Your task to perform on an android device: Open sound settings Image 0: 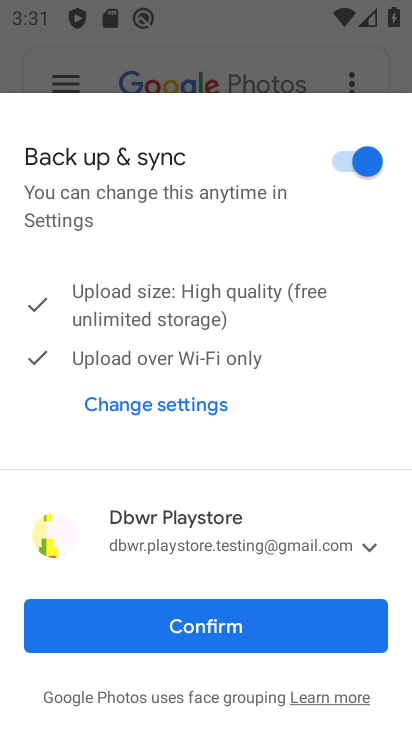
Step 0: click (217, 634)
Your task to perform on an android device: Open sound settings Image 1: 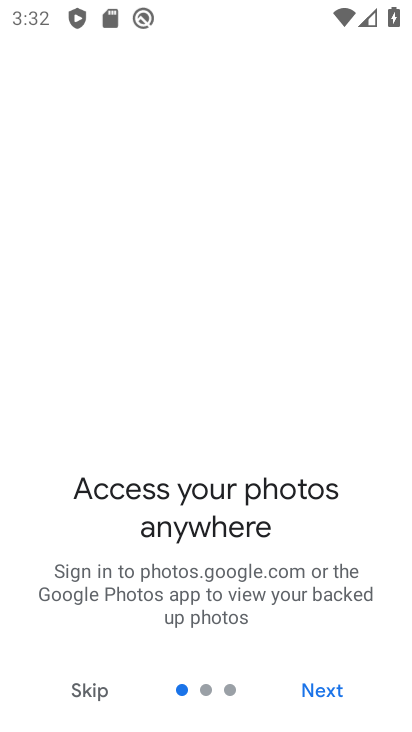
Step 1: click (229, 690)
Your task to perform on an android device: Open sound settings Image 2: 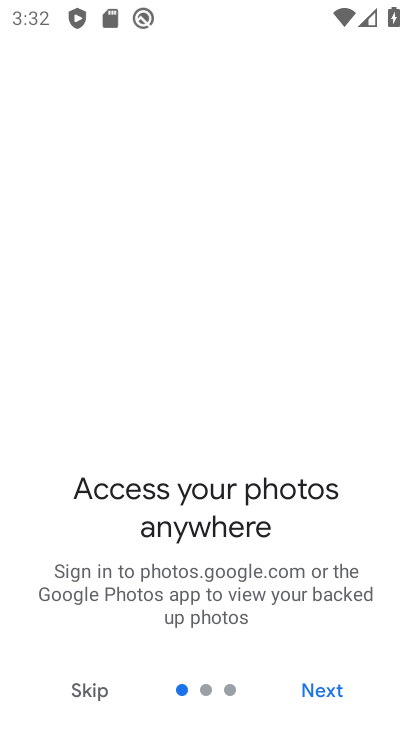
Step 2: click (313, 691)
Your task to perform on an android device: Open sound settings Image 3: 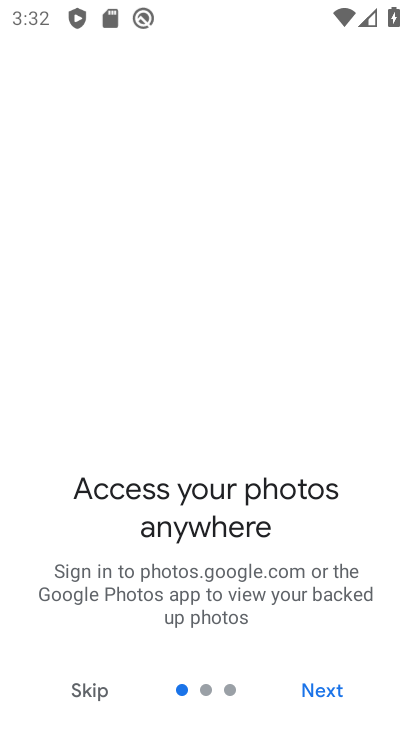
Step 3: click (315, 690)
Your task to perform on an android device: Open sound settings Image 4: 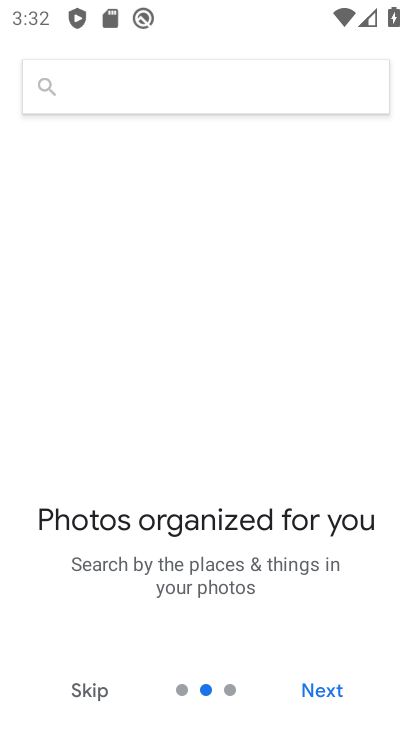
Step 4: click (320, 681)
Your task to perform on an android device: Open sound settings Image 5: 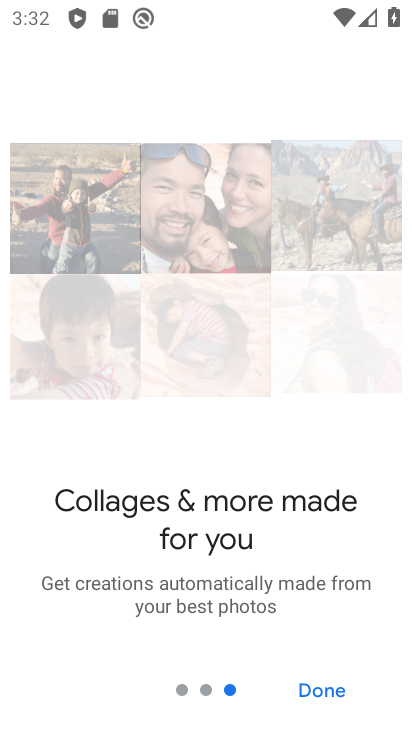
Step 5: click (314, 680)
Your task to perform on an android device: Open sound settings Image 6: 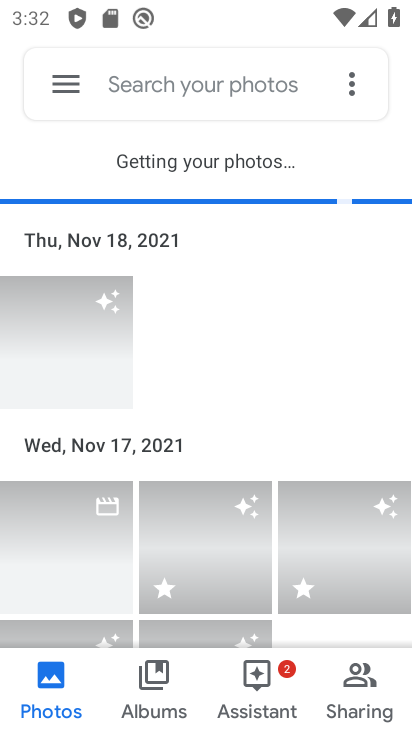
Step 6: click (330, 689)
Your task to perform on an android device: Open sound settings Image 7: 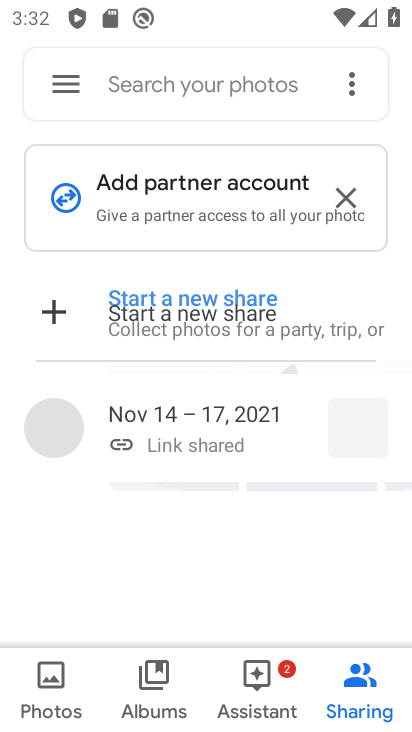
Step 7: press home button
Your task to perform on an android device: Open sound settings Image 8: 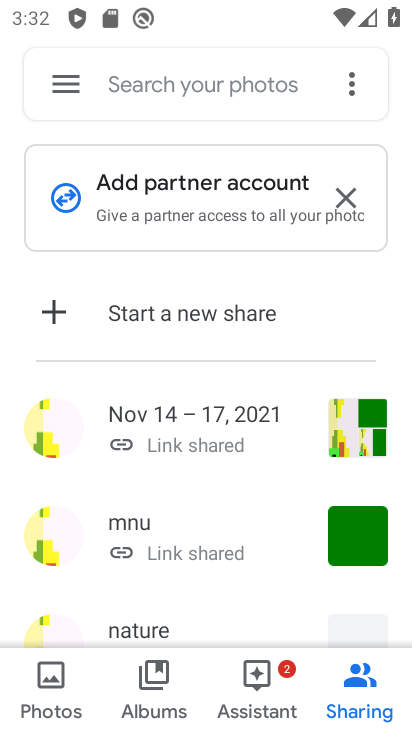
Step 8: press home button
Your task to perform on an android device: Open sound settings Image 9: 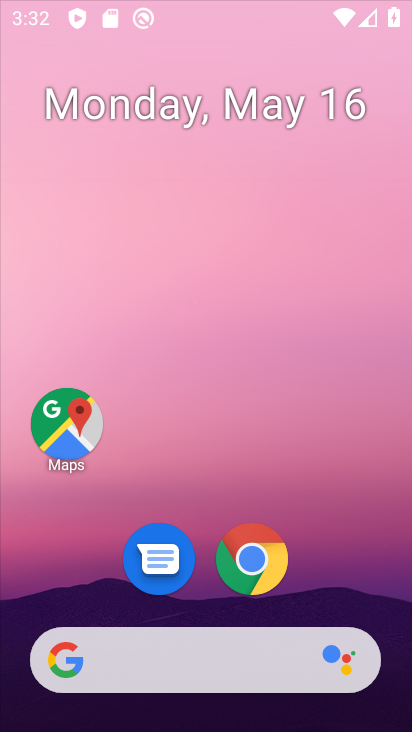
Step 9: press home button
Your task to perform on an android device: Open sound settings Image 10: 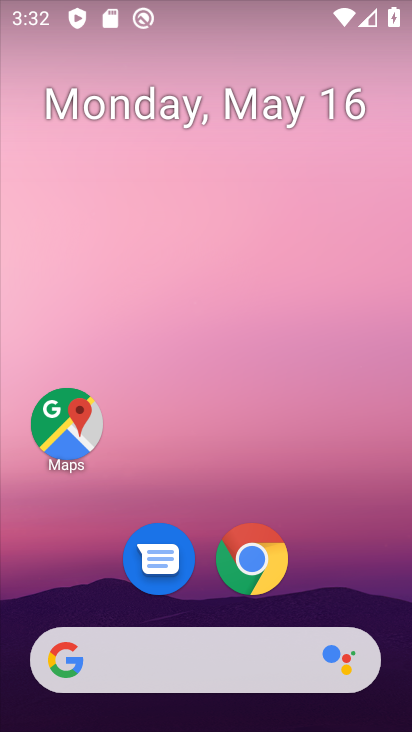
Step 10: drag from (325, 610) to (198, 18)
Your task to perform on an android device: Open sound settings Image 11: 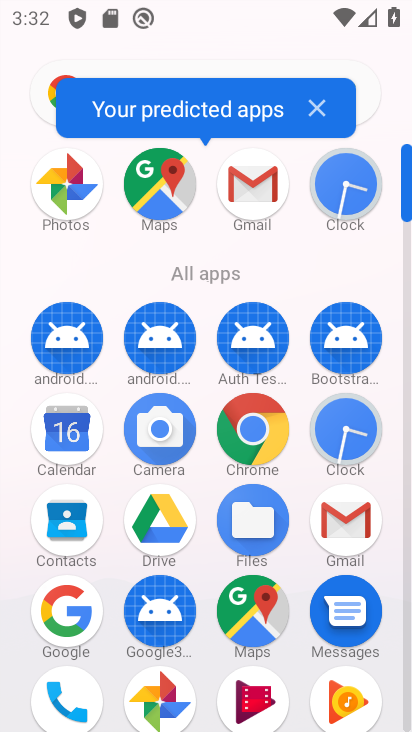
Step 11: drag from (287, 585) to (240, 78)
Your task to perform on an android device: Open sound settings Image 12: 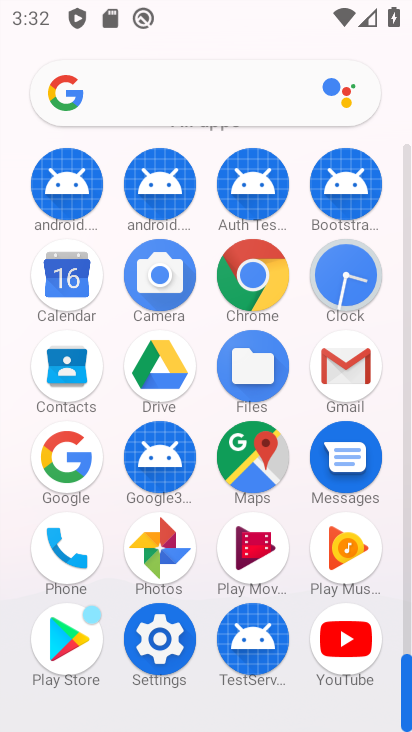
Step 12: drag from (334, 466) to (307, 211)
Your task to perform on an android device: Open sound settings Image 13: 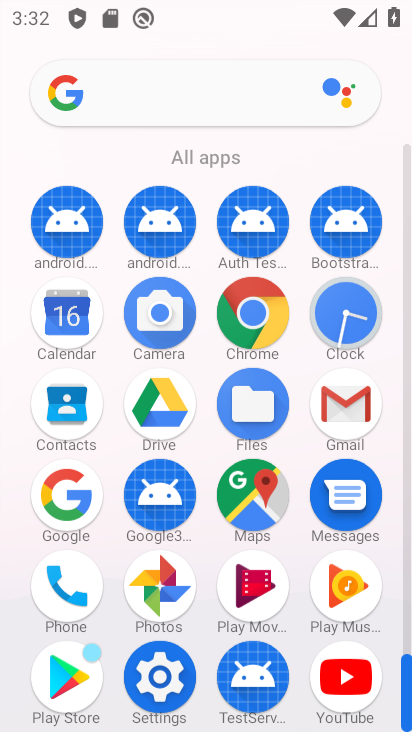
Step 13: drag from (280, 391) to (224, 112)
Your task to perform on an android device: Open sound settings Image 14: 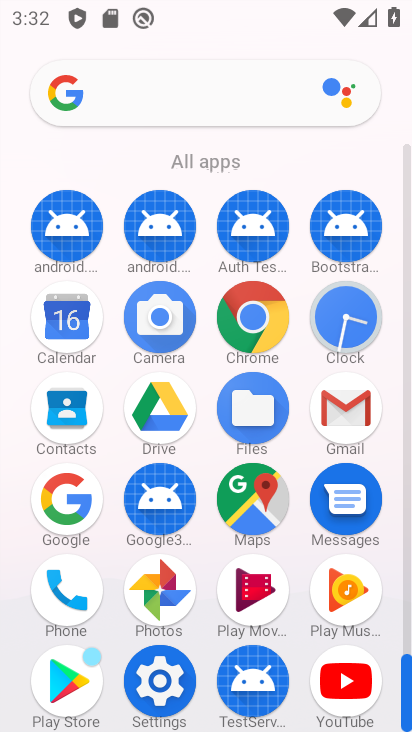
Step 14: click (162, 679)
Your task to perform on an android device: Open sound settings Image 15: 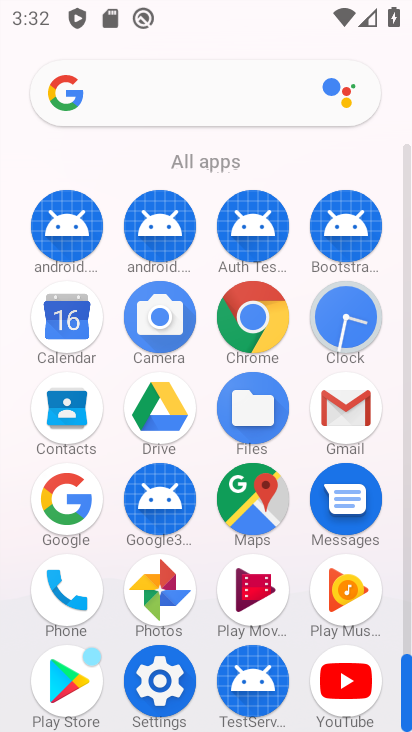
Step 15: click (161, 679)
Your task to perform on an android device: Open sound settings Image 16: 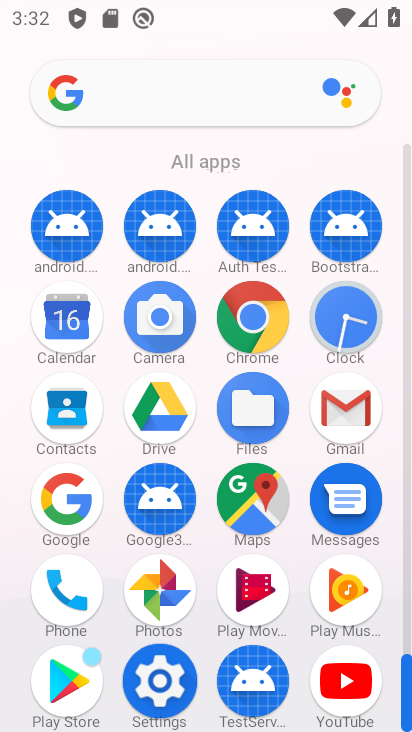
Step 16: click (156, 684)
Your task to perform on an android device: Open sound settings Image 17: 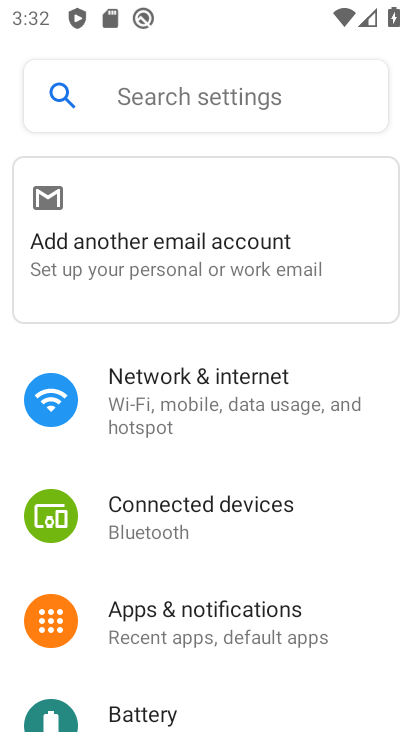
Step 17: drag from (192, 506) to (209, 265)
Your task to perform on an android device: Open sound settings Image 18: 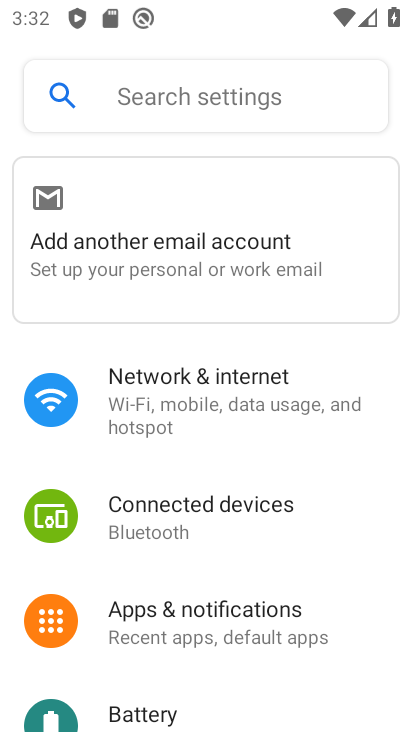
Step 18: drag from (209, 472) to (154, 65)
Your task to perform on an android device: Open sound settings Image 19: 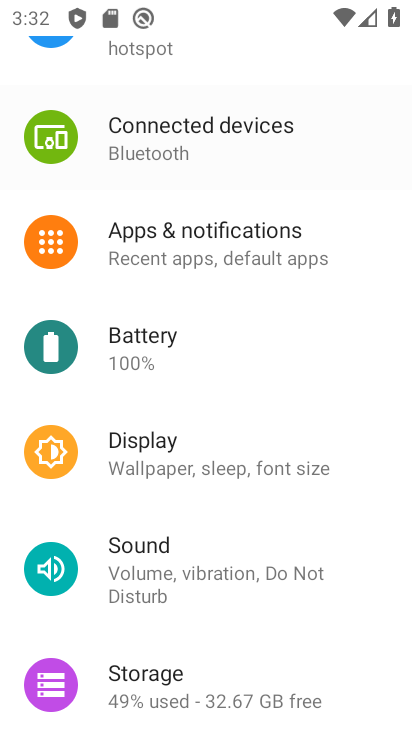
Step 19: drag from (176, 481) to (131, 158)
Your task to perform on an android device: Open sound settings Image 20: 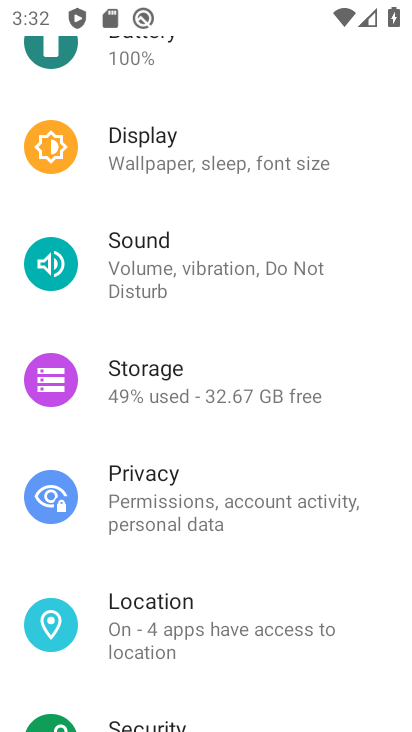
Step 20: drag from (194, 562) to (147, 255)
Your task to perform on an android device: Open sound settings Image 21: 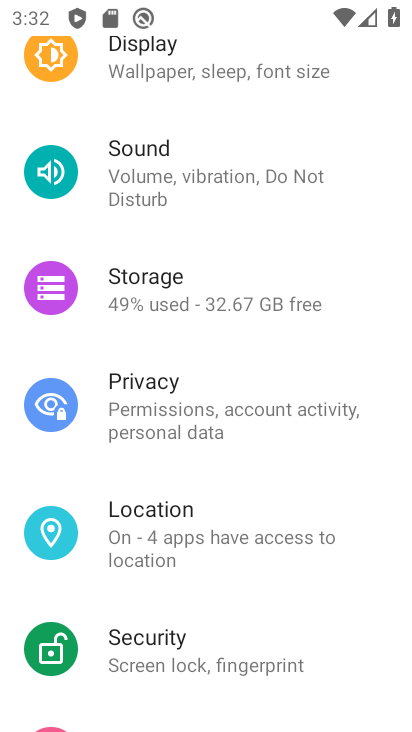
Step 21: click (146, 171)
Your task to perform on an android device: Open sound settings Image 22: 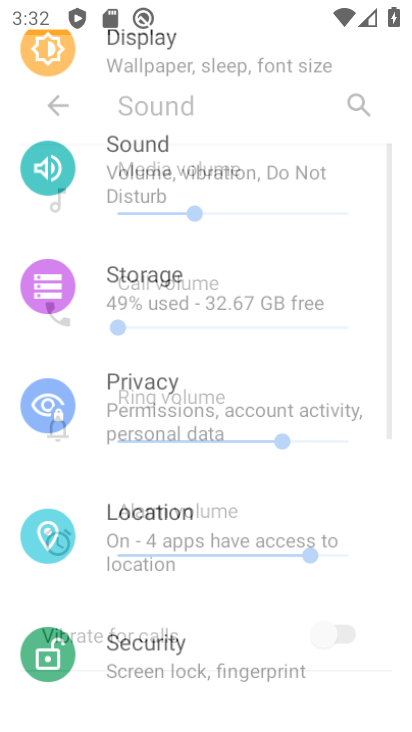
Step 22: click (146, 175)
Your task to perform on an android device: Open sound settings Image 23: 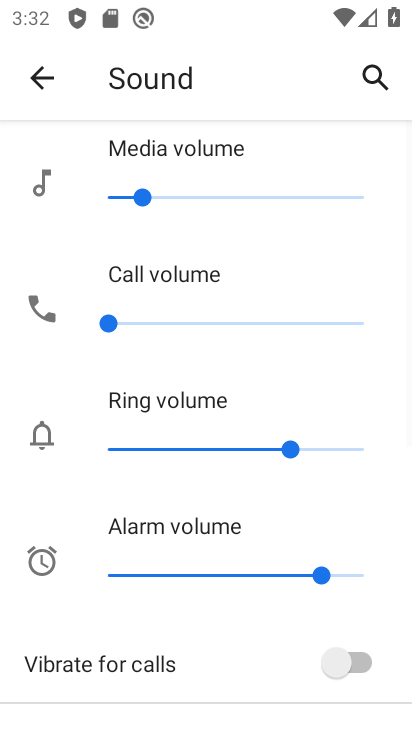
Step 23: task complete